Your task to perform on an android device: open app "Move to iOS" (install if not already installed) Image 0: 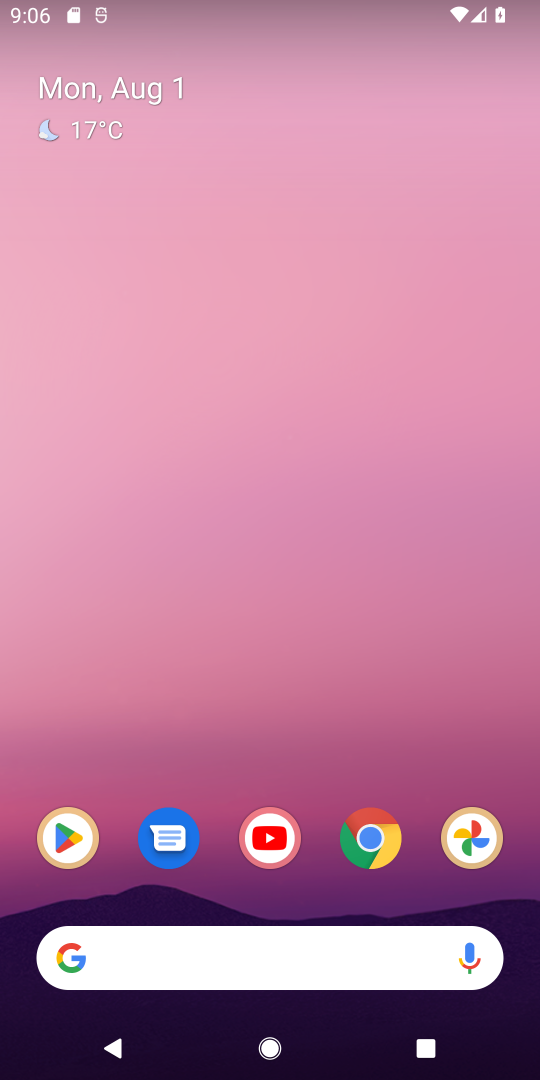
Step 0: press home button
Your task to perform on an android device: open app "Move to iOS" (install if not already installed) Image 1: 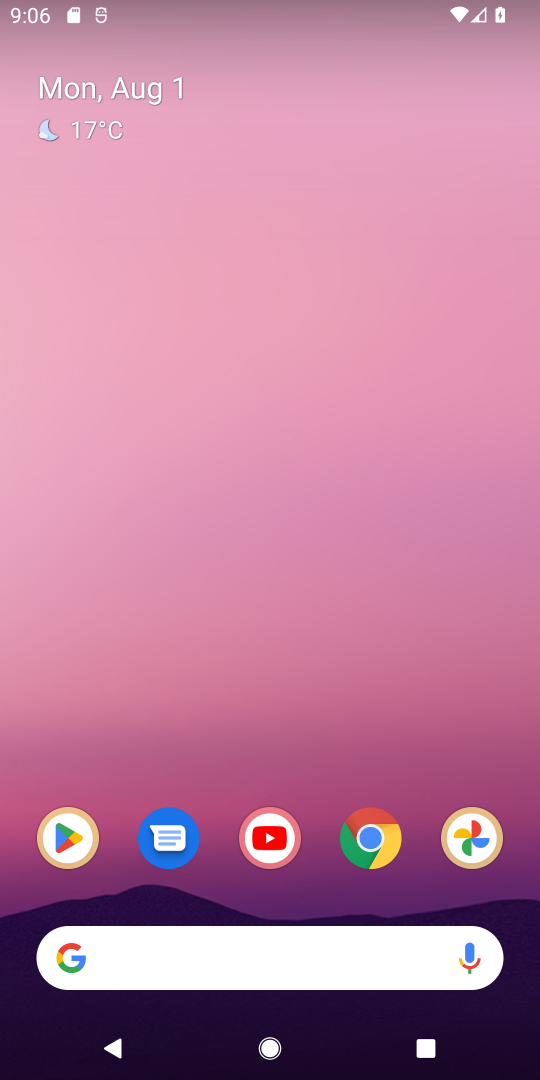
Step 1: click (55, 826)
Your task to perform on an android device: open app "Move to iOS" (install if not already installed) Image 2: 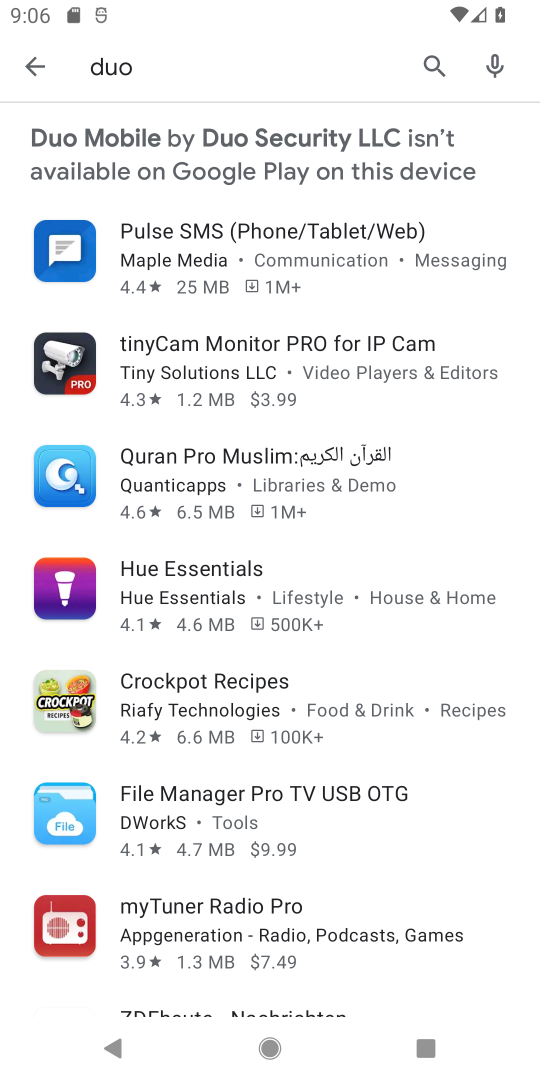
Step 2: click (423, 64)
Your task to perform on an android device: open app "Move to iOS" (install if not already installed) Image 3: 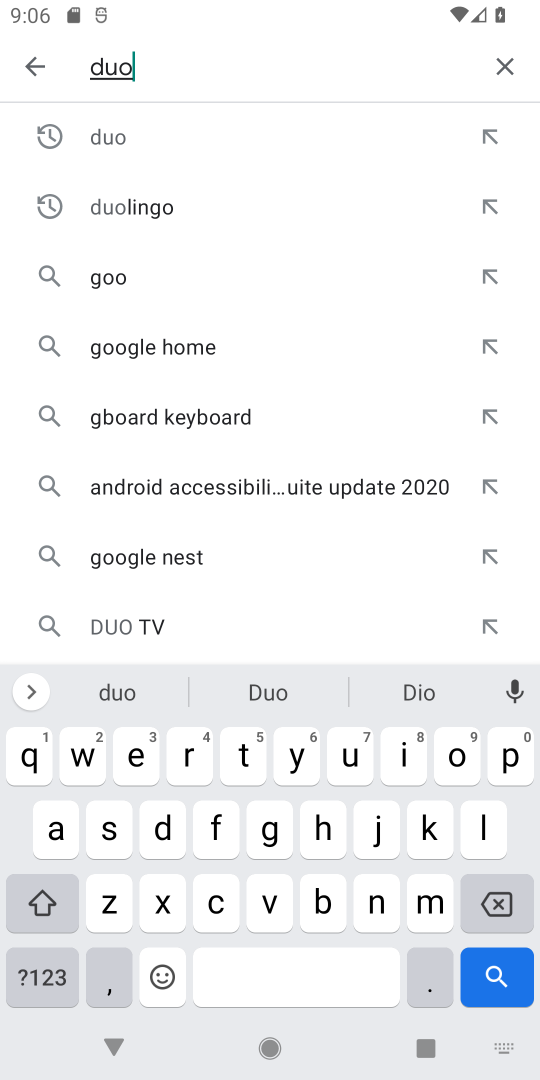
Step 3: click (498, 65)
Your task to perform on an android device: open app "Move to iOS" (install if not already installed) Image 4: 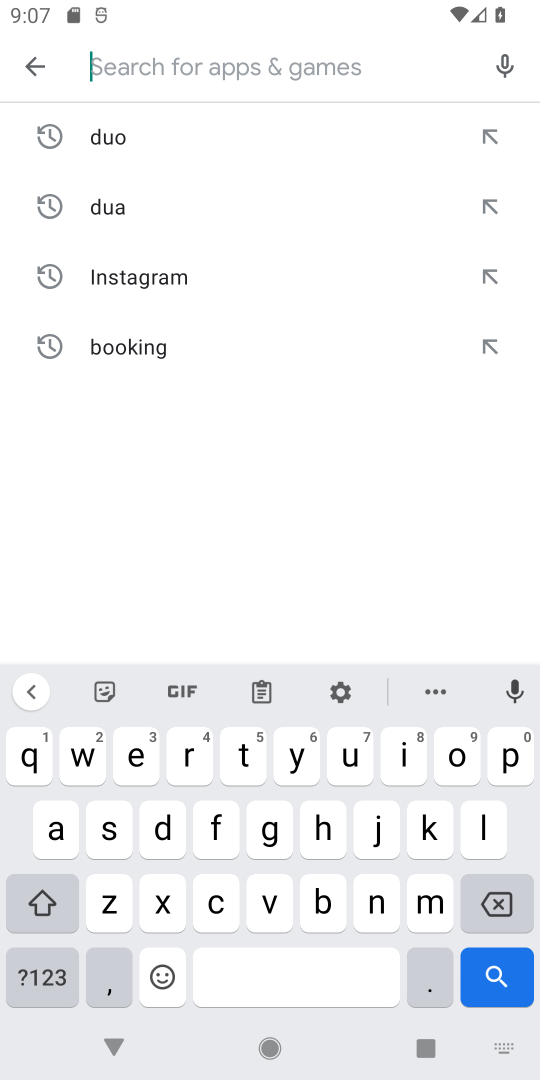
Step 4: type "move to ios"
Your task to perform on an android device: open app "Move to iOS" (install if not already installed) Image 5: 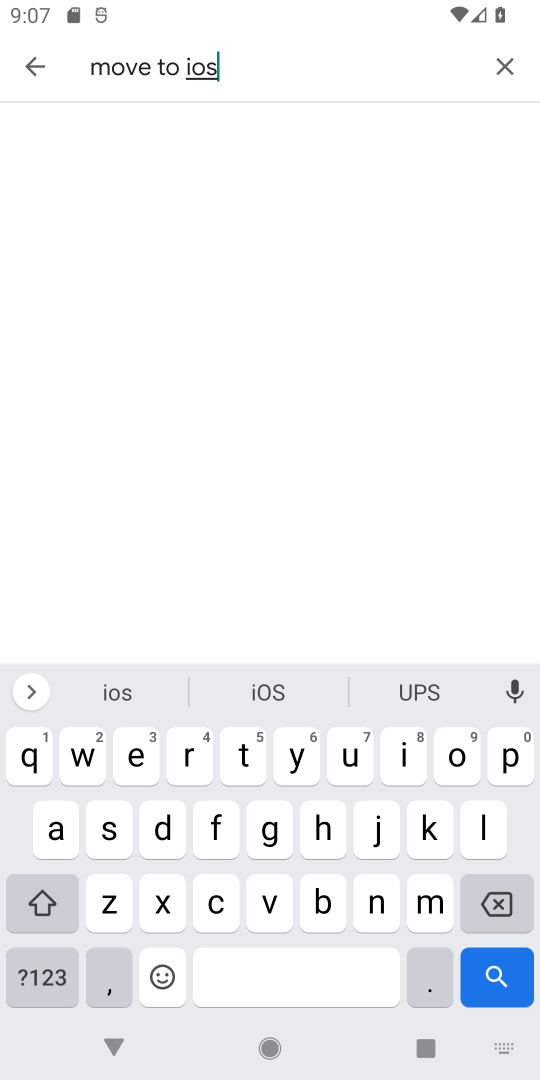
Step 5: click (510, 985)
Your task to perform on an android device: open app "Move to iOS" (install if not already installed) Image 6: 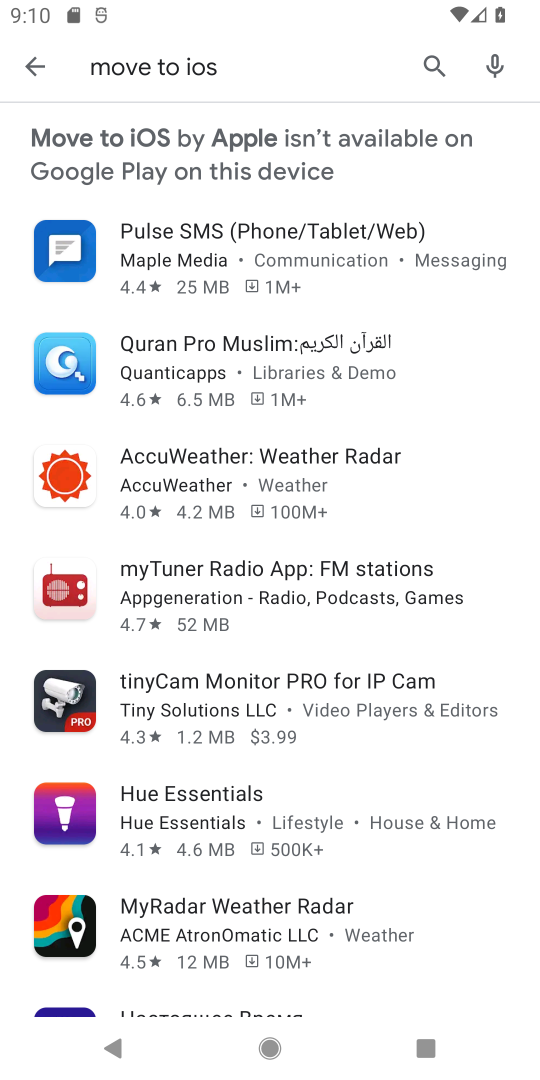
Step 6: task complete